Your task to perform on an android device: What's the weather going to be this weekend? Image 0: 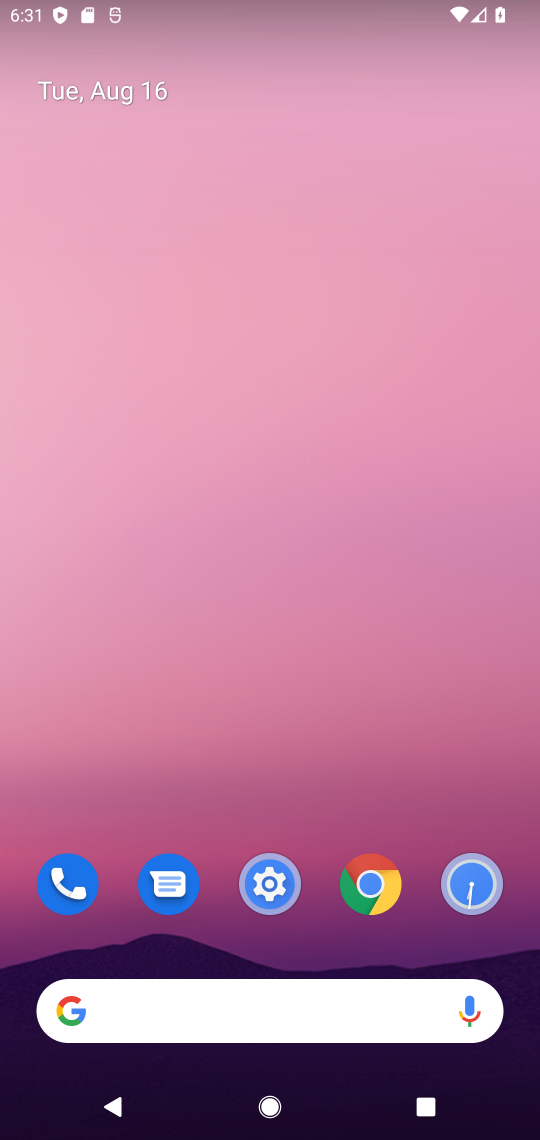
Step 0: press home button
Your task to perform on an android device: What's the weather going to be this weekend? Image 1: 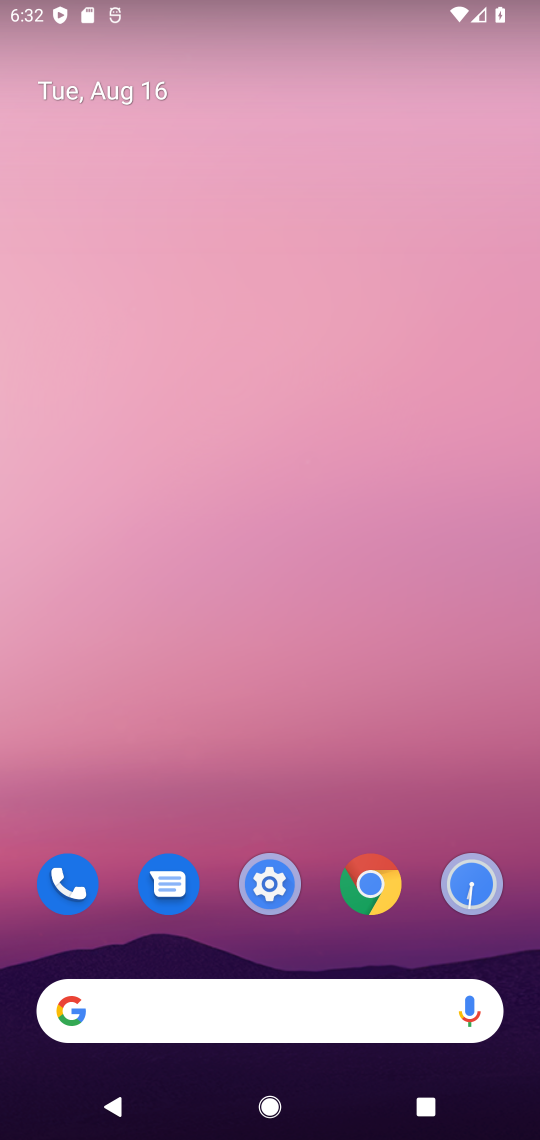
Step 1: click (76, 1020)
Your task to perform on an android device: What's the weather going to be this weekend? Image 2: 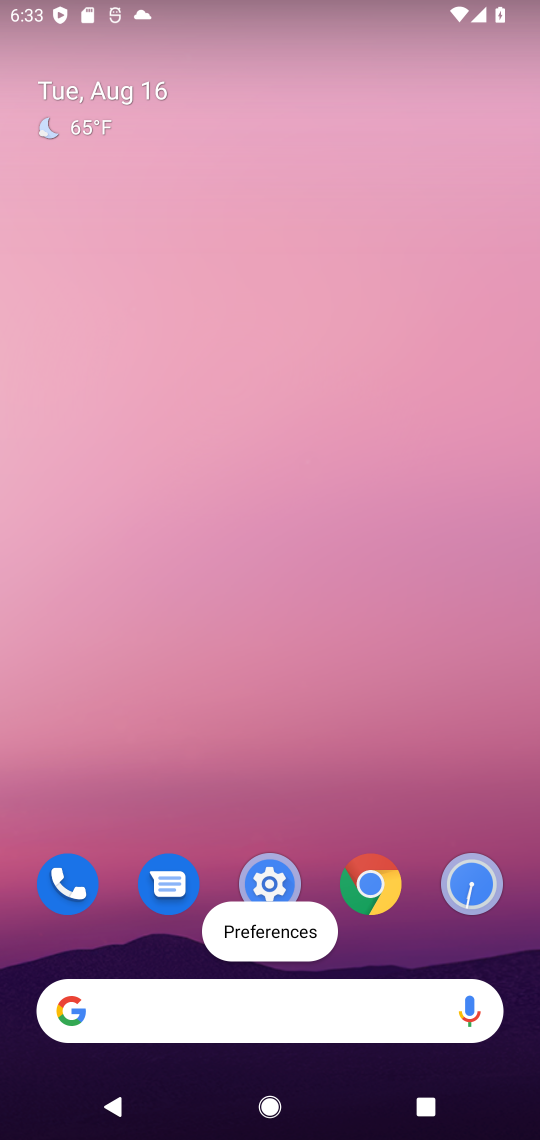
Step 2: click (70, 1019)
Your task to perform on an android device: What's the weather going to be this weekend? Image 3: 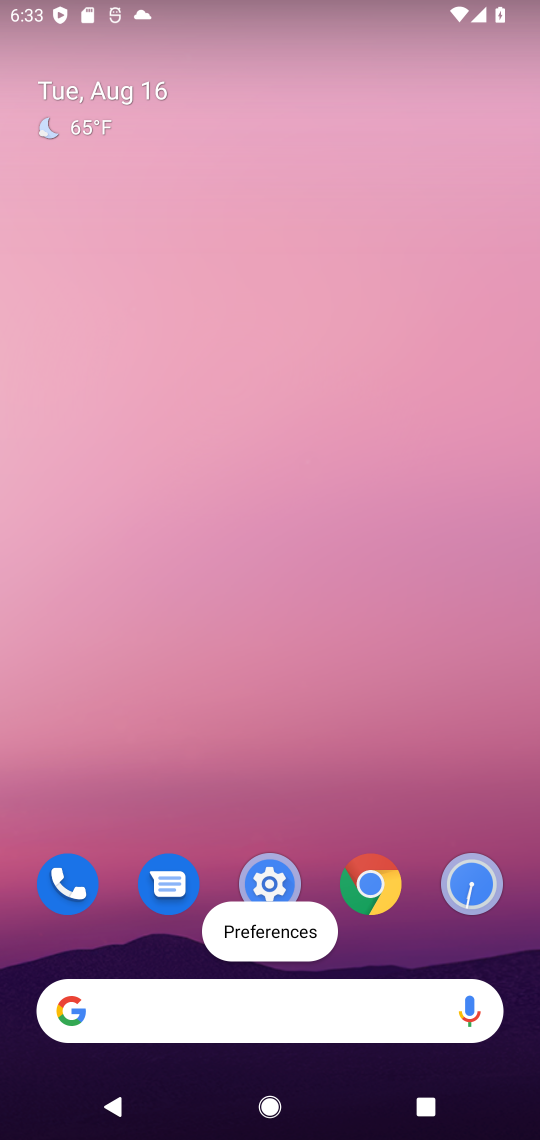
Step 3: click (58, 1012)
Your task to perform on an android device: What's the weather going to be this weekend? Image 4: 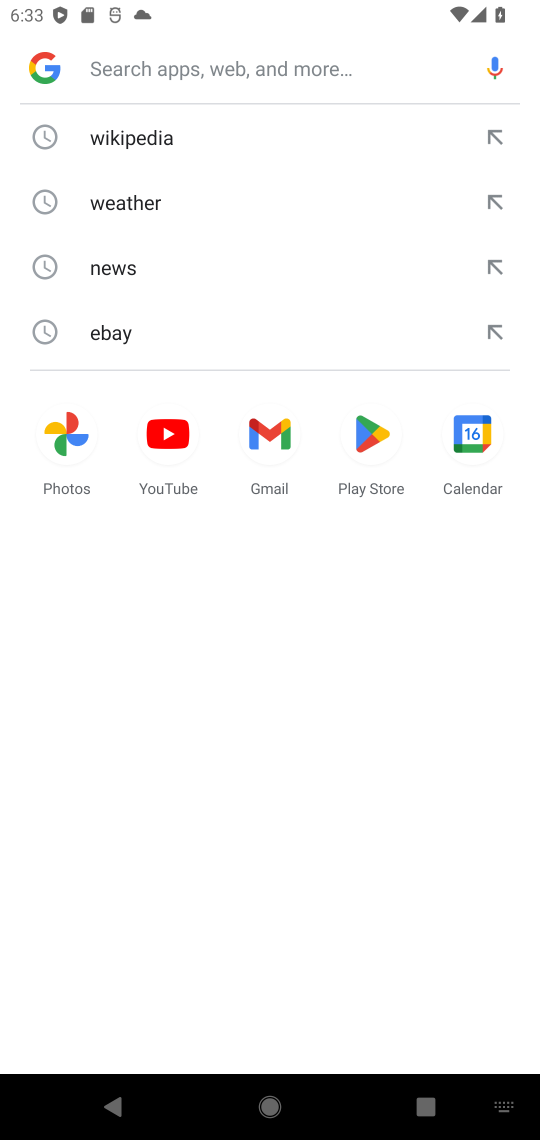
Step 4: type "weather going to be this weekend?"
Your task to perform on an android device: What's the weather going to be this weekend? Image 5: 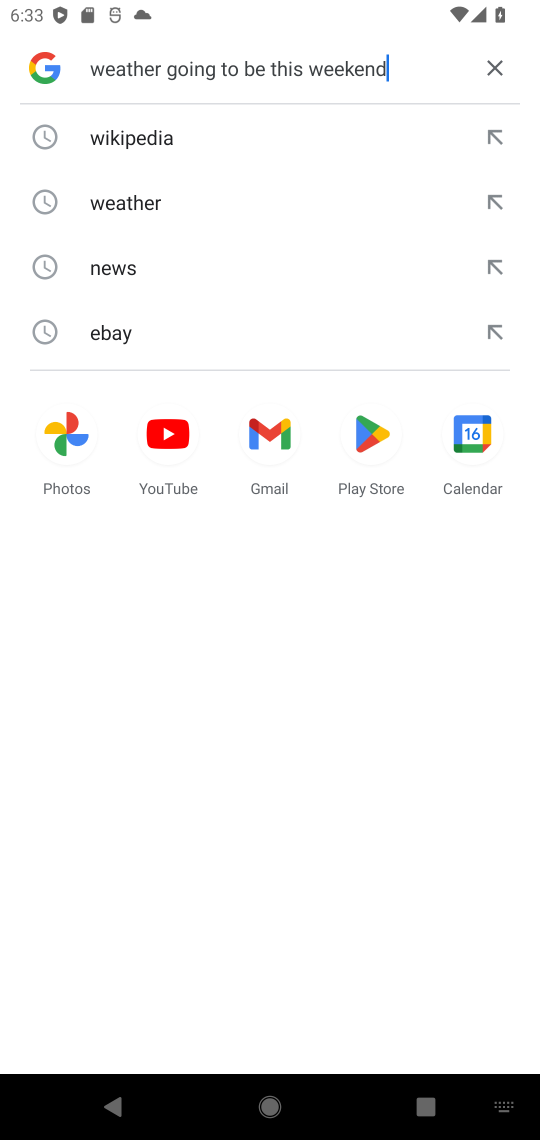
Step 5: press enter
Your task to perform on an android device: What's the weather going to be this weekend? Image 6: 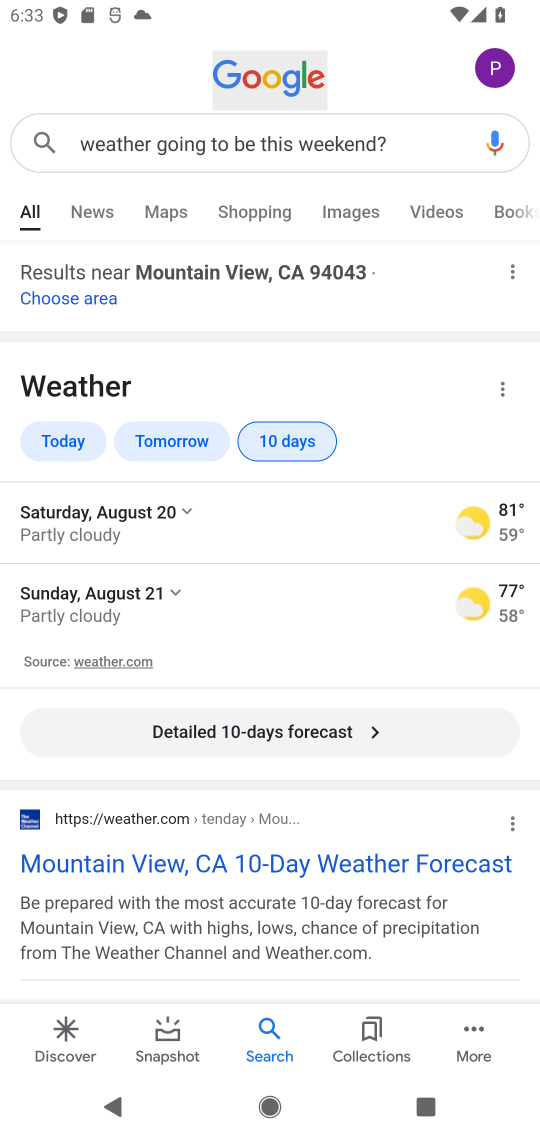
Step 6: task complete